Your task to perform on an android device: Open Google Chrome Image 0: 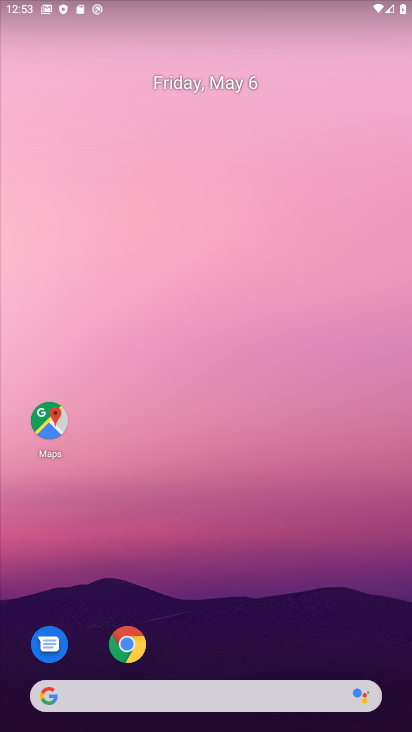
Step 0: drag from (337, 623) to (314, 130)
Your task to perform on an android device: Open Google Chrome Image 1: 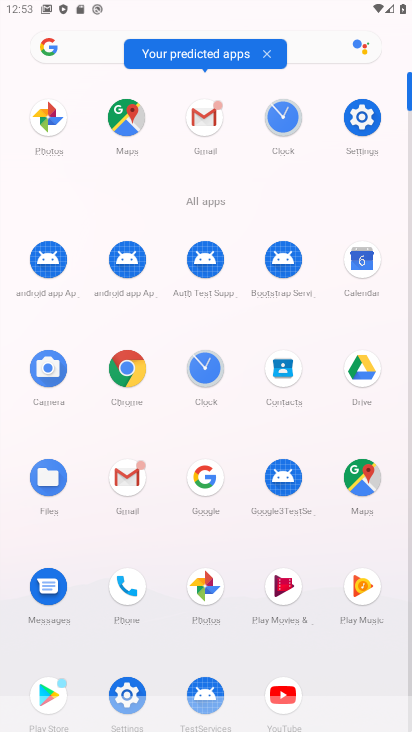
Step 1: click (129, 366)
Your task to perform on an android device: Open Google Chrome Image 2: 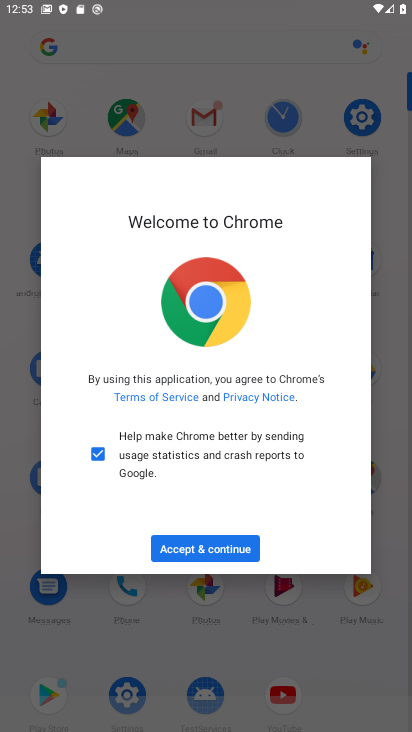
Step 2: click (190, 563)
Your task to perform on an android device: Open Google Chrome Image 3: 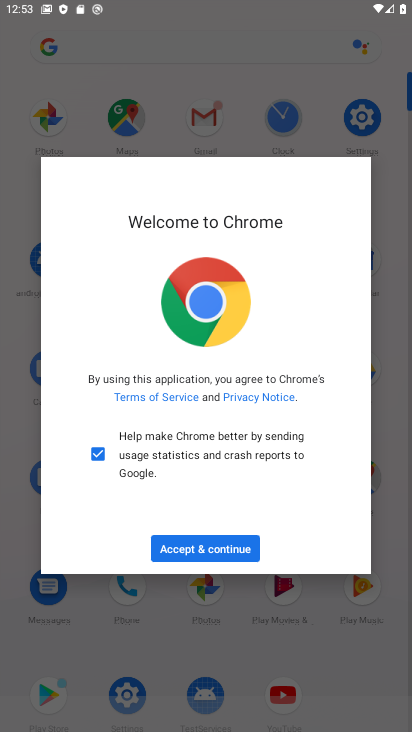
Step 3: click (187, 554)
Your task to perform on an android device: Open Google Chrome Image 4: 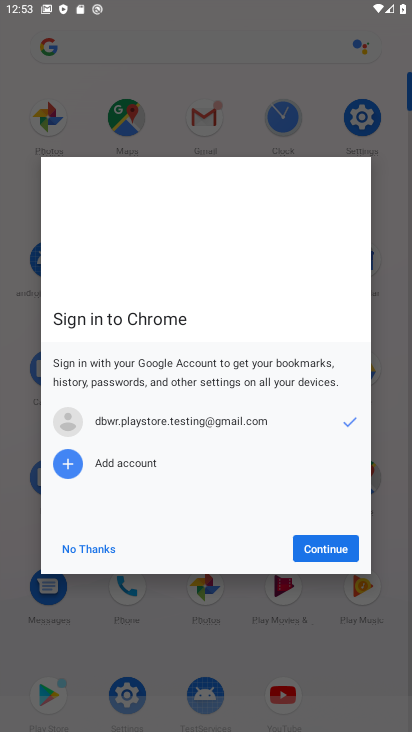
Step 4: click (314, 550)
Your task to perform on an android device: Open Google Chrome Image 5: 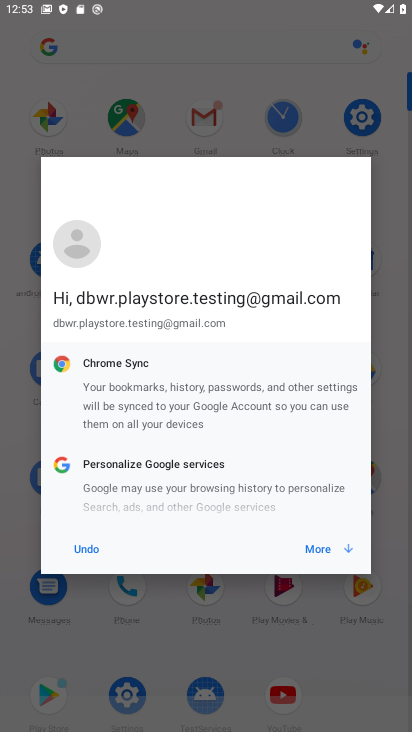
Step 5: click (314, 548)
Your task to perform on an android device: Open Google Chrome Image 6: 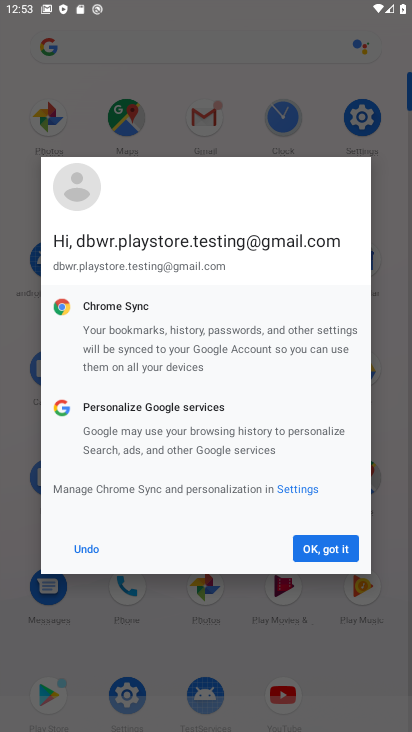
Step 6: click (314, 548)
Your task to perform on an android device: Open Google Chrome Image 7: 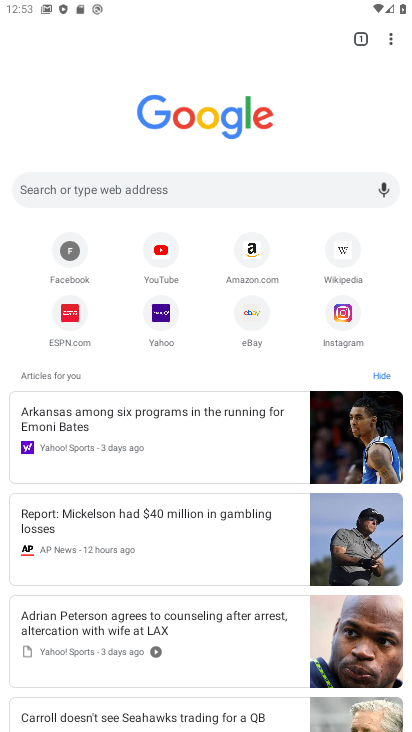
Step 7: task complete